Your task to perform on an android device: turn off priority inbox in the gmail app Image 0: 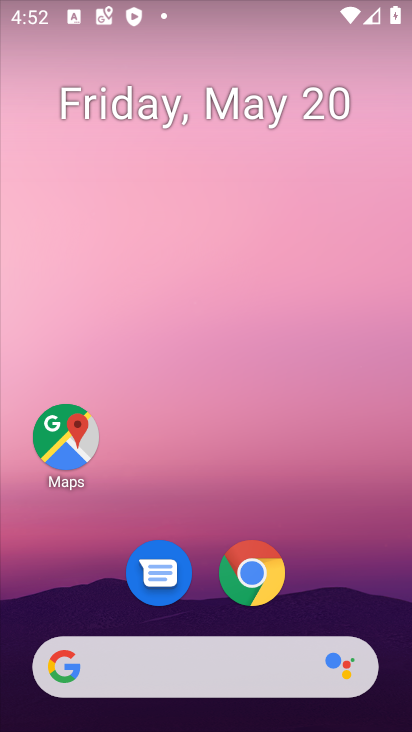
Step 0: drag from (383, 628) to (322, 38)
Your task to perform on an android device: turn off priority inbox in the gmail app Image 1: 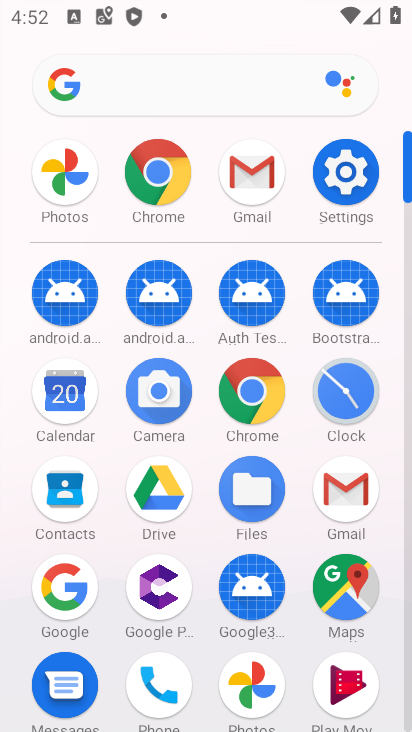
Step 1: click (344, 488)
Your task to perform on an android device: turn off priority inbox in the gmail app Image 2: 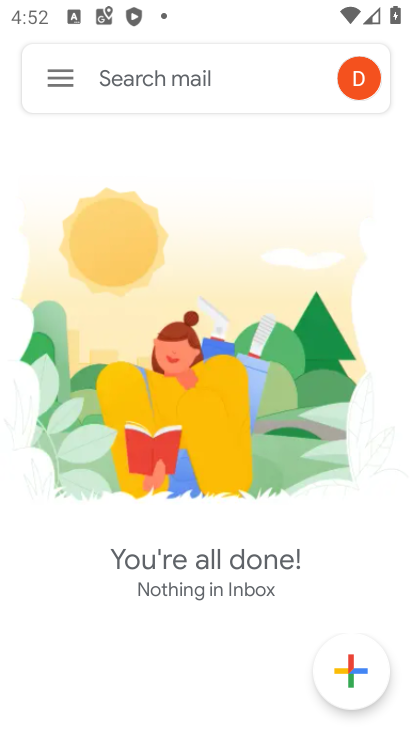
Step 2: click (56, 69)
Your task to perform on an android device: turn off priority inbox in the gmail app Image 3: 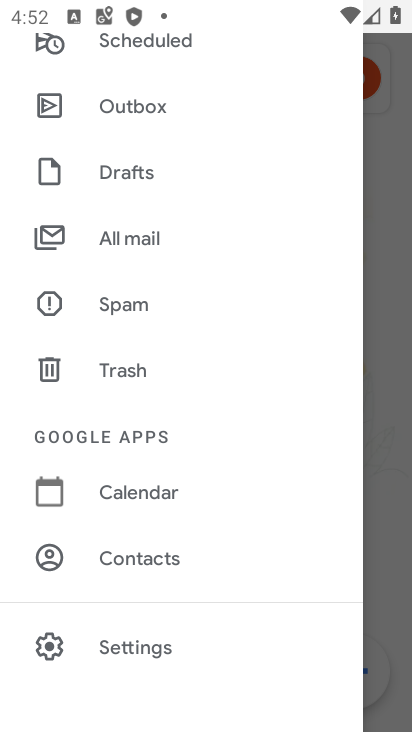
Step 3: click (131, 665)
Your task to perform on an android device: turn off priority inbox in the gmail app Image 4: 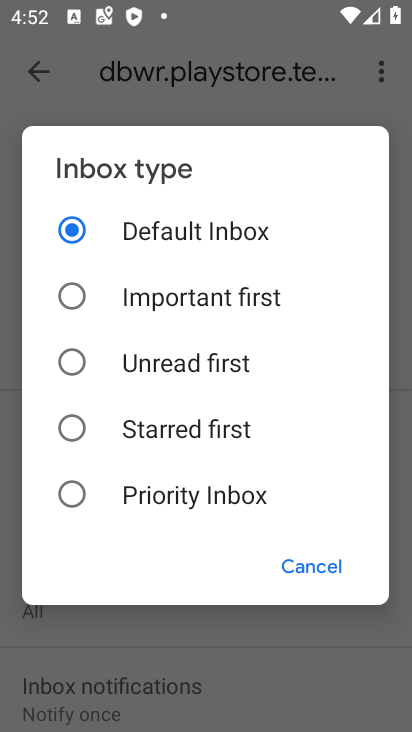
Step 4: task complete